Your task to perform on an android device: Go to location settings Image 0: 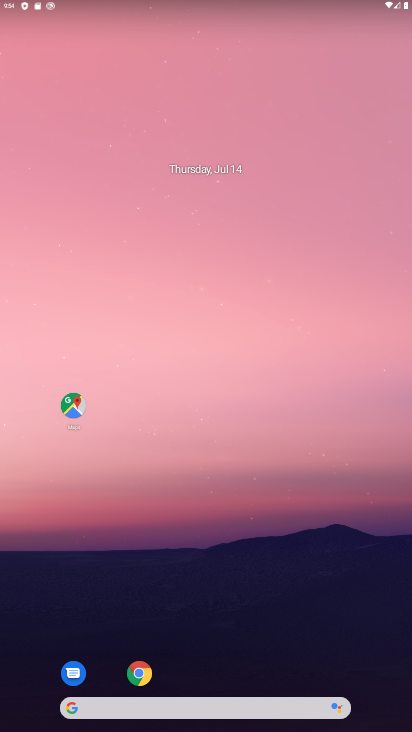
Step 0: drag from (236, 582) to (252, 83)
Your task to perform on an android device: Go to location settings Image 1: 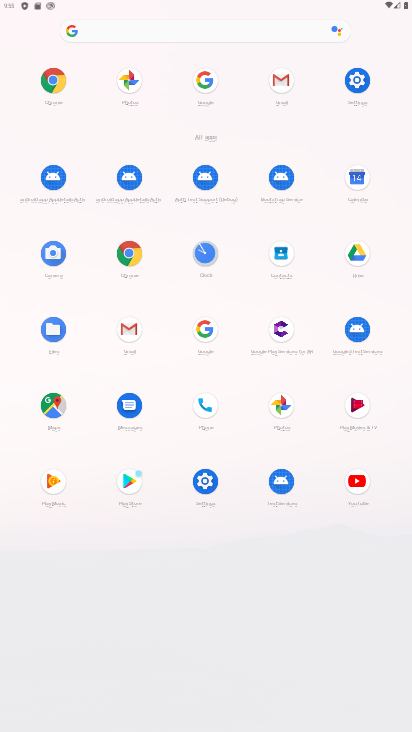
Step 1: click (361, 82)
Your task to perform on an android device: Go to location settings Image 2: 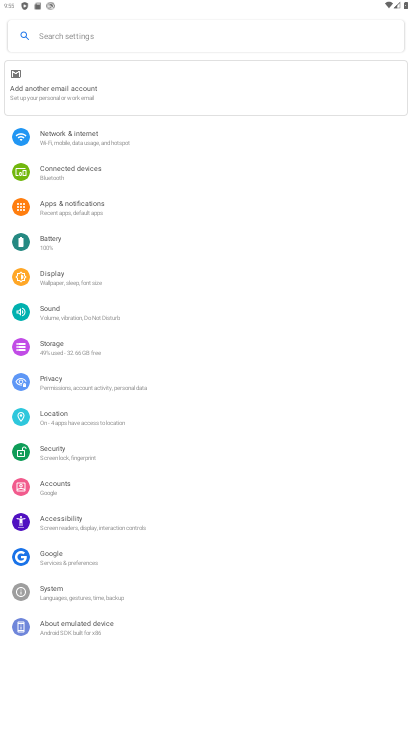
Step 2: click (53, 411)
Your task to perform on an android device: Go to location settings Image 3: 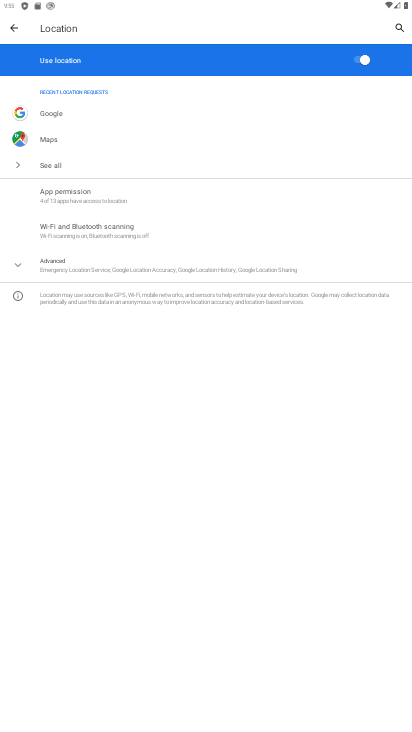
Step 3: task complete